Your task to perform on an android device: Open network settings Image 0: 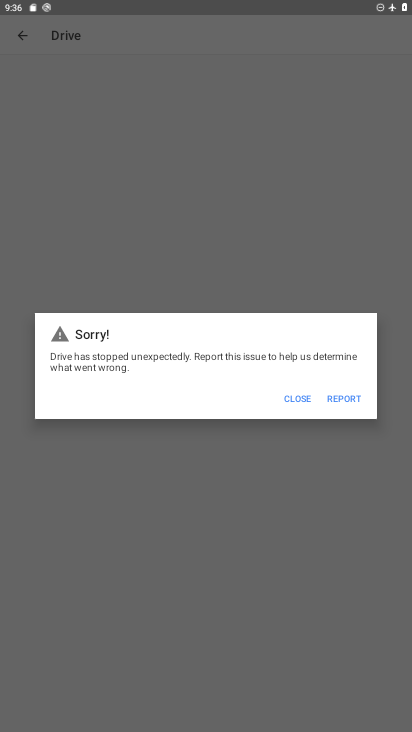
Step 0: press home button
Your task to perform on an android device: Open network settings Image 1: 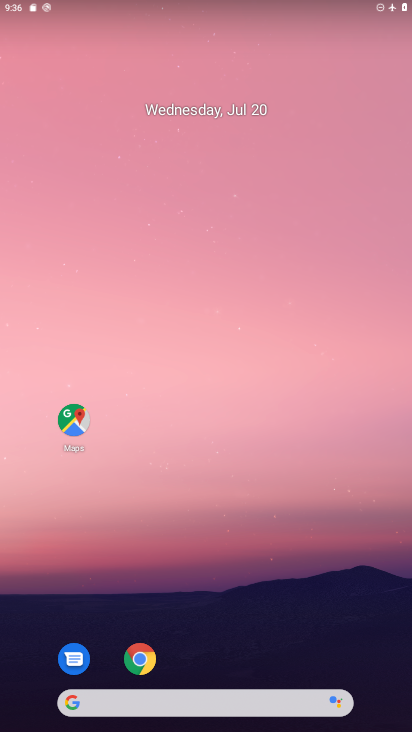
Step 1: drag from (252, 627) to (210, 23)
Your task to perform on an android device: Open network settings Image 2: 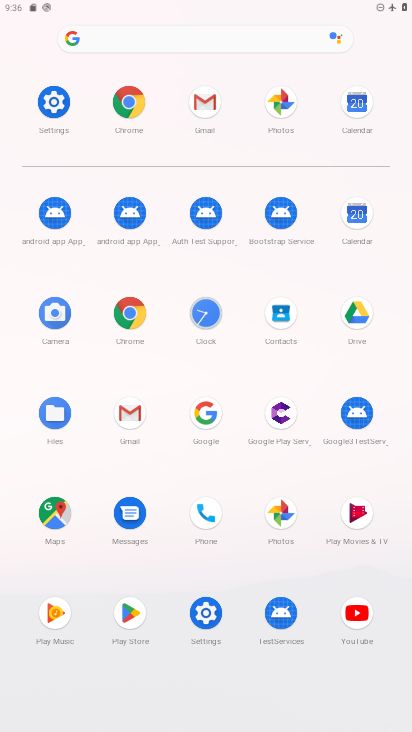
Step 2: click (53, 98)
Your task to perform on an android device: Open network settings Image 3: 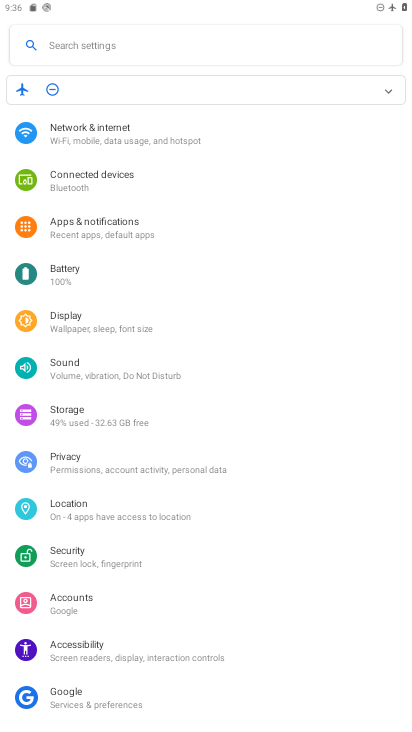
Step 3: click (57, 131)
Your task to perform on an android device: Open network settings Image 4: 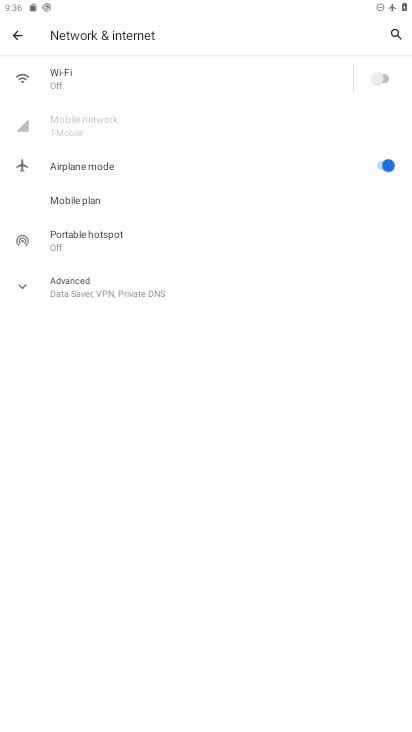
Step 4: task complete